Your task to perform on an android device: turn on showing notifications on the lock screen Image 0: 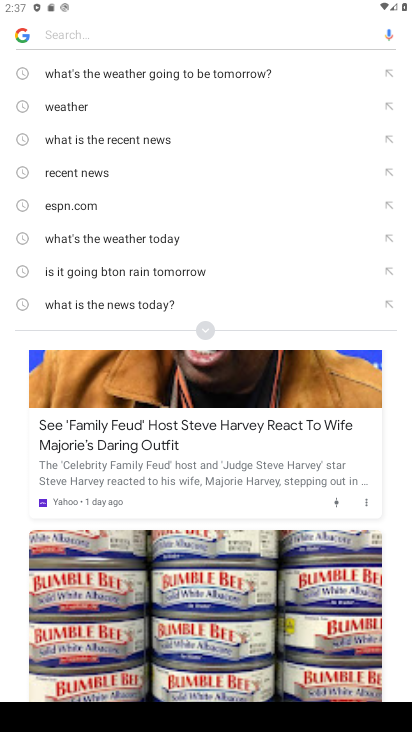
Step 0: press home button
Your task to perform on an android device: turn on showing notifications on the lock screen Image 1: 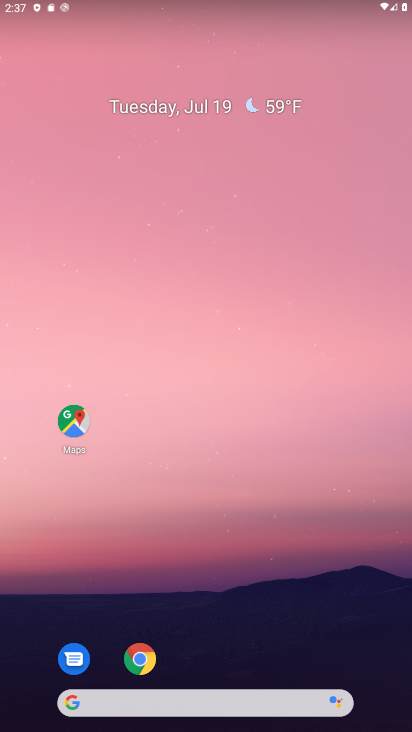
Step 1: drag from (218, 707) to (257, 81)
Your task to perform on an android device: turn on showing notifications on the lock screen Image 2: 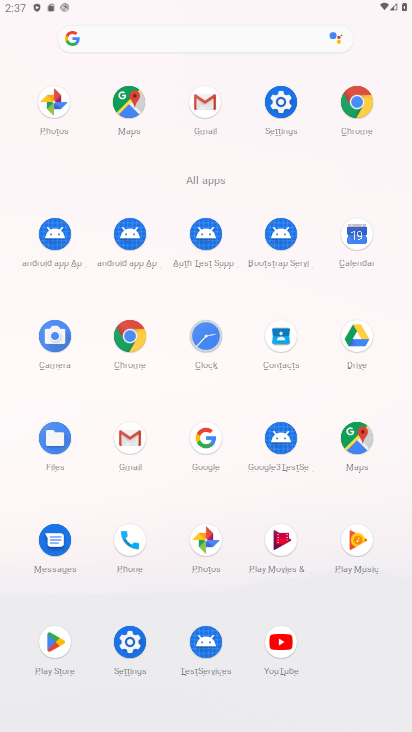
Step 2: click (280, 104)
Your task to perform on an android device: turn on showing notifications on the lock screen Image 3: 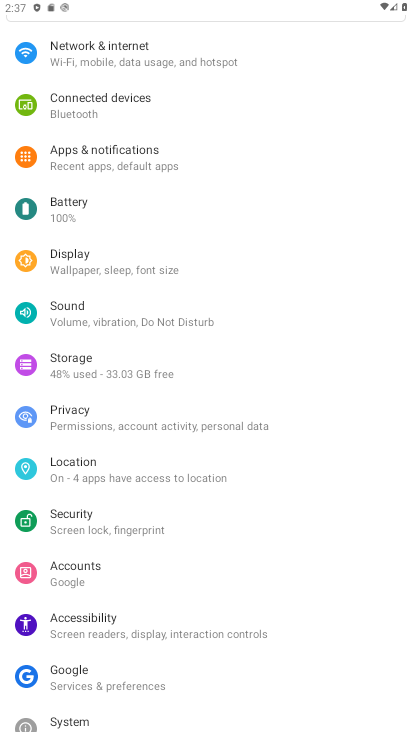
Step 3: click (102, 160)
Your task to perform on an android device: turn on showing notifications on the lock screen Image 4: 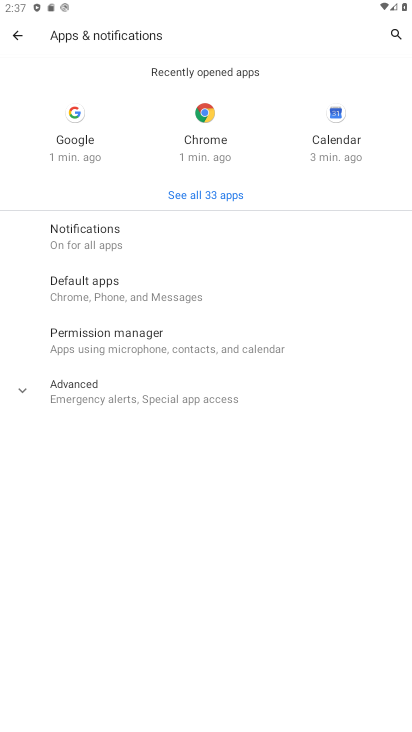
Step 4: click (80, 232)
Your task to perform on an android device: turn on showing notifications on the lock screen Image 5: 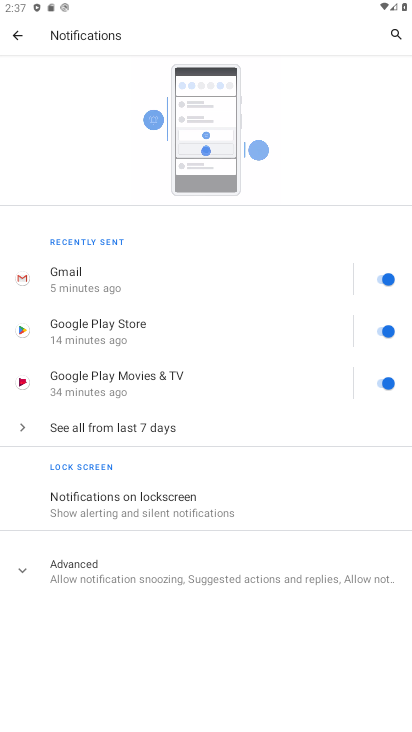
Step 5: click (95, 497)
Your task to perform on an android device: turn on showing notifications on the lock screen Image 6: 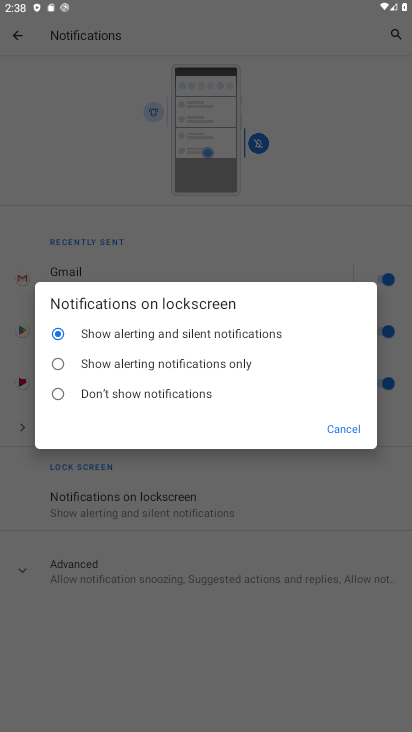
Step 6: click (61, 333)
Your task to perform on an android device: turn on showing notifications on the lock screen Image 7: 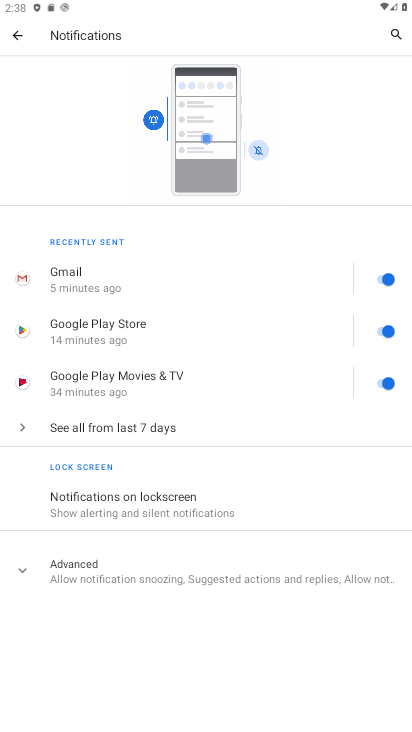
Step 7: task complete